Your task to perform on an android device: Play the last video I watched on Youtube Image 0: 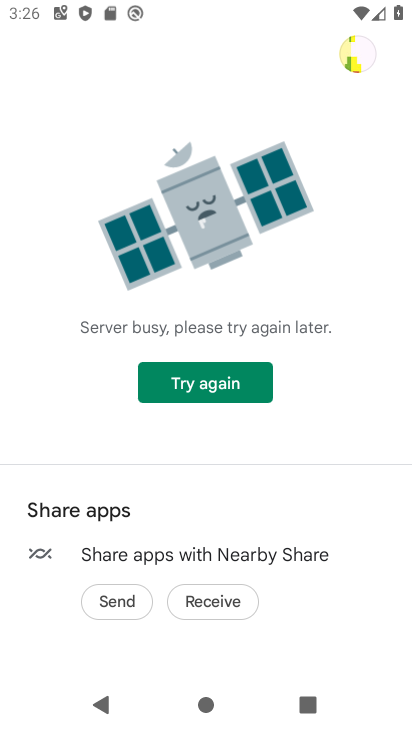
Step 0: press home button
Your task to perform on an android device: Play the last video I watched on Youtube Image 1: 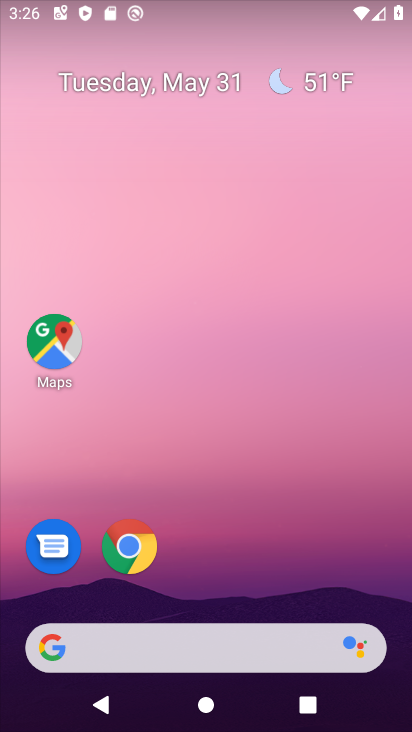
Step 1: drag from (205, 576) to (199, 286)
Your task to perform on an android device: Play the last video I watched on Youtube Image 2: 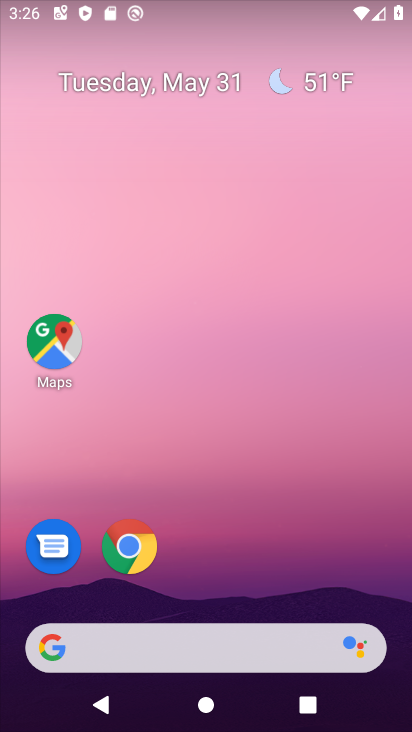
Step 2: drag from (200, 588) to (312, 83)
Your task to perform on an android device: Play the last video I watched on Youtube Image 3: 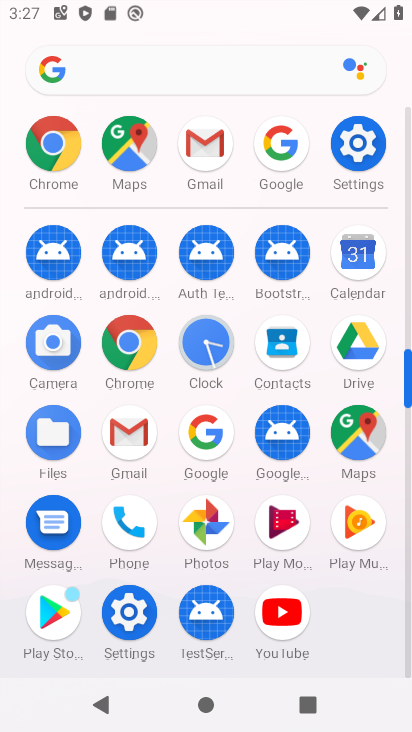
Step 3: click (278, 622)
Your task to perform on an android device: Play the last video I watched on Youtube Image 4: 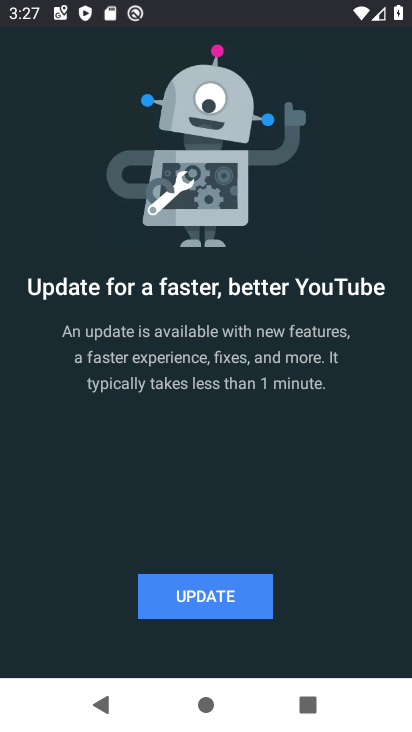
Step 4: click (211, 596)
Your task to perform on an android device: Play the last video I watched on Youtube Image 5: 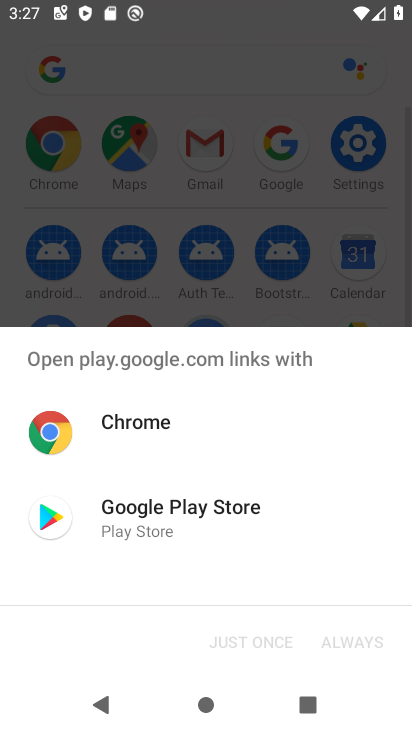
Step 5: click (131, 529)
Your task to perform on an android device: Play the last video I watched on Youtube Image 6: 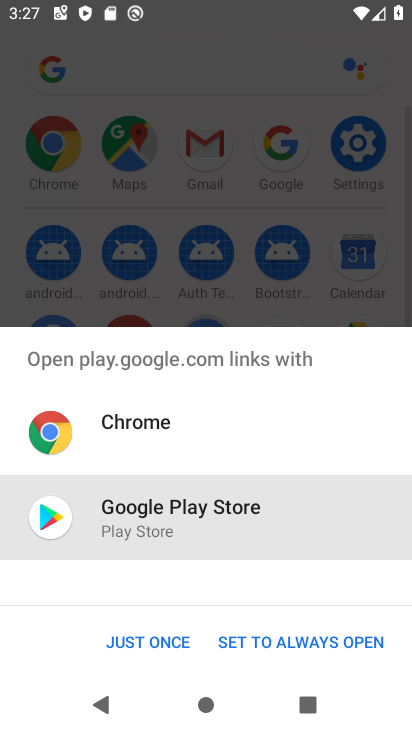
Step 6: click (258, 636)
Your task to perform on an android device: Play the last video I watched on Youtube Image 7: 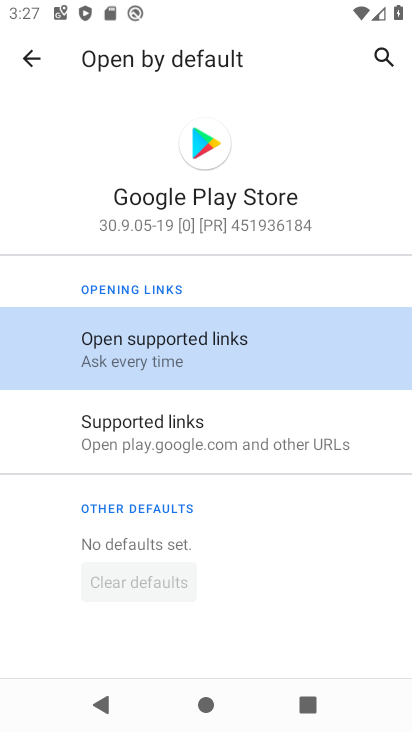
Step 7: click (146, 349)
Your task to perform on an android device: Play the last video I watched on Youtube Image 8: 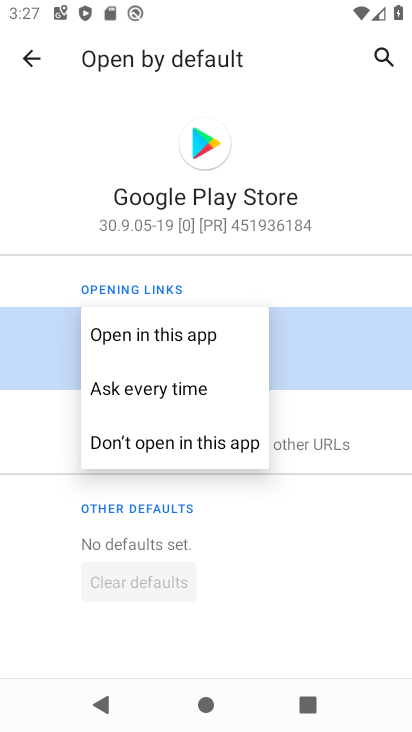
Step 8: click (139, 335)
Your task to perform on an android device: Play the last video I watched on Youtube Image 9: 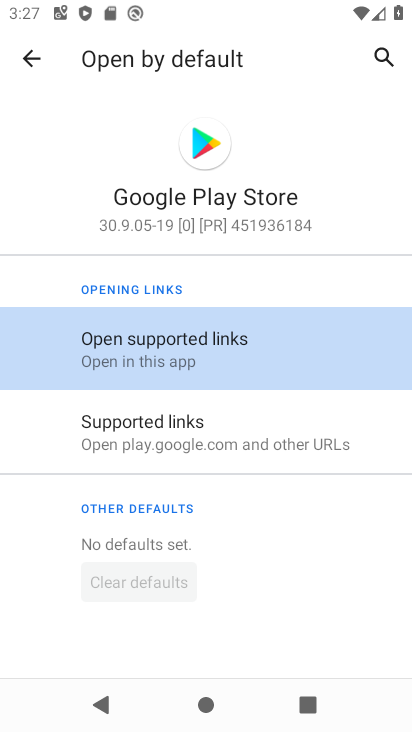
Step 9: click (25, 55)
Your task to perform on an android device: Play the last video I watched on Youtube Image 10: 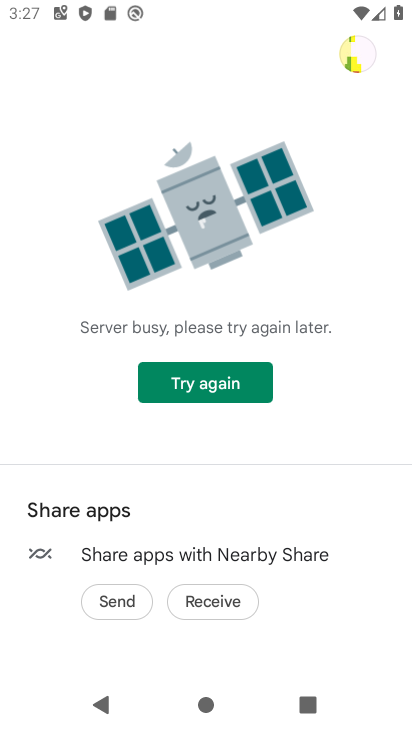
Step 10: click (25, 55)
Your task to perform on an android device: Play the last video I watched on Youtube Image 11: 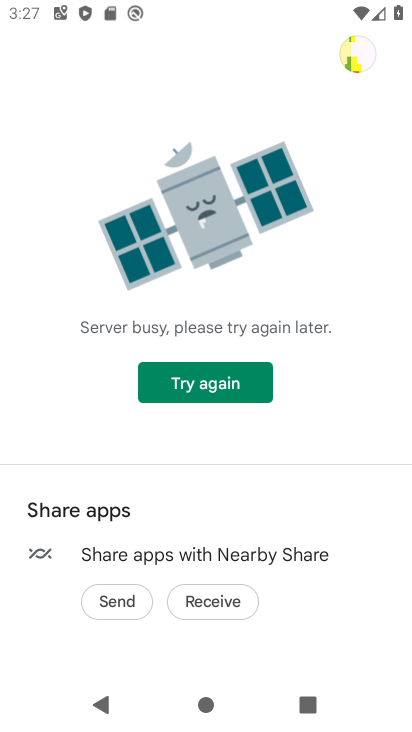
Step 11: task complete